Your task to perform on an android device: Search for Italian restaurants on Maps Image 0: 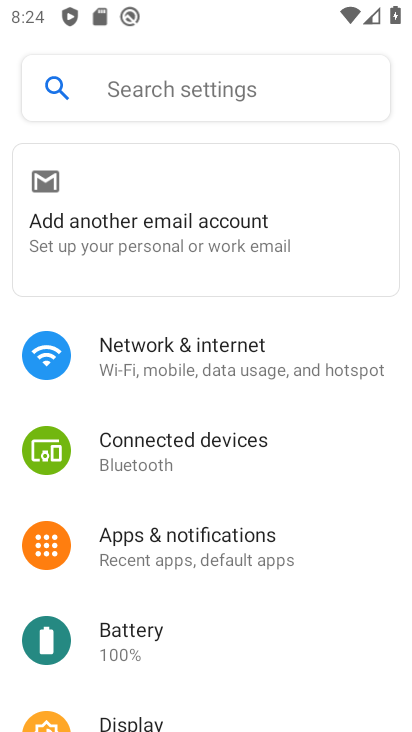
Step 0: press home button
Your task to perform on an android device: Search for Italian restaurants on Maps Image 1: 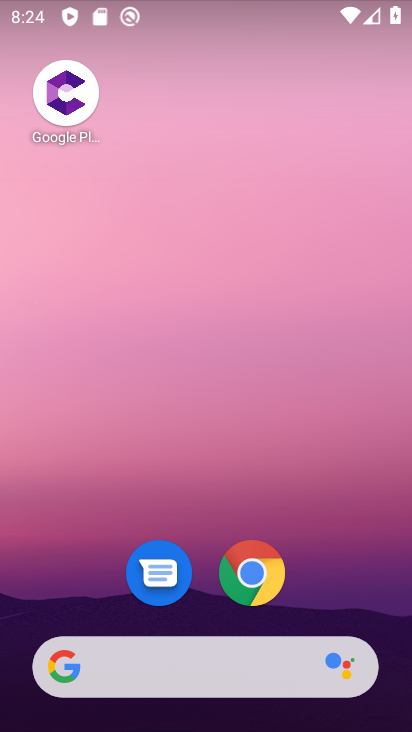
Step 1: drag from (330, 500) to (327, 209)
Your task to perform on an android device: Search for Italian restaurants on Maps Image 2: 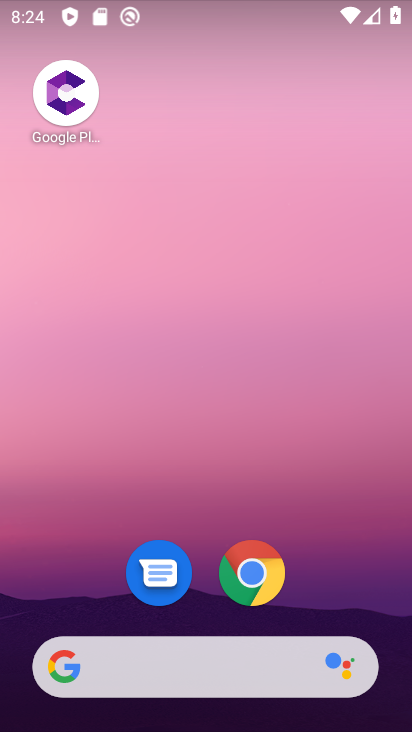
Step 2: drag from (302, 585) to (307, 153)
Your task to perform on an android device: Search for Italian restaurants on Maps Image 3: 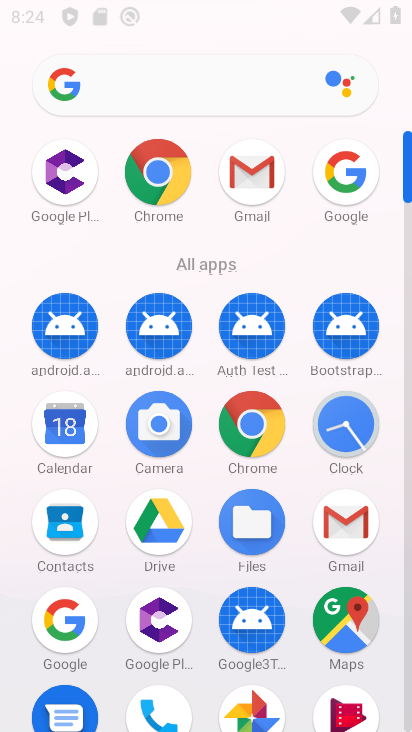
Step 3: drag from (205, 665) to (261, 338)
Your task to perform on an android device: Search for Italian restaurants on Maps Image 4: 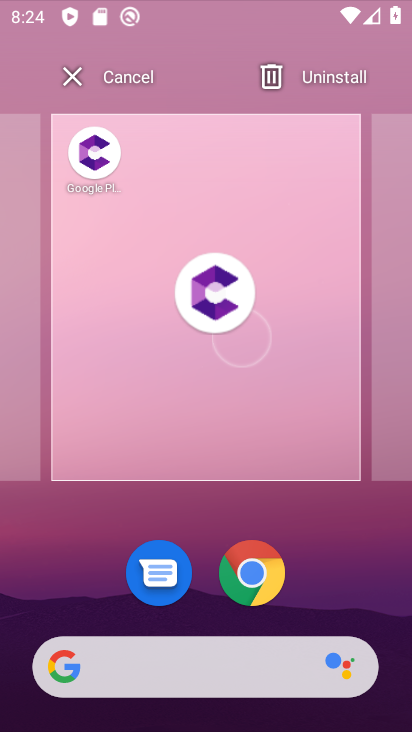
Step 4: drag from (330, 420) to (328, 282)
Your task to perform on an android device: Search for Italian restaurants on Maps Image 5: 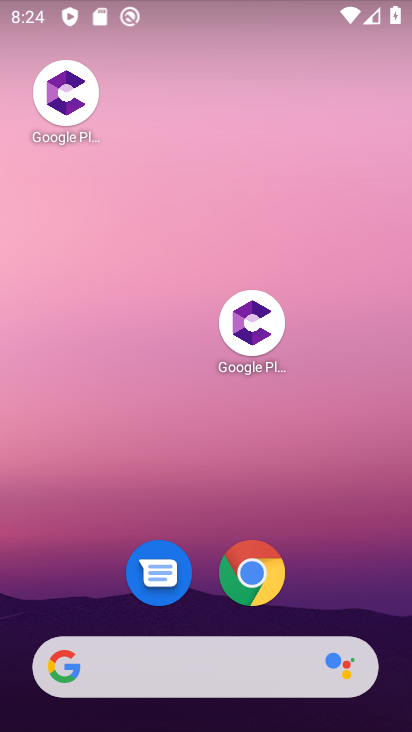
Step 5: drag from (349, 446) to (348, 216)
Your task to perform on an android device: Search for Italian restaurants on Maps Image 6: 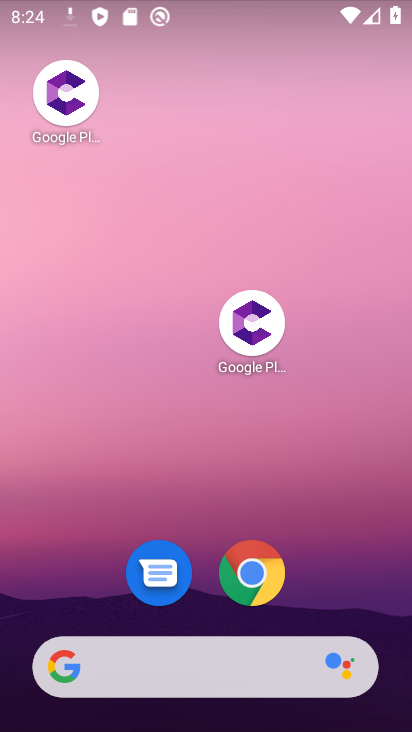
Step 6: drag from (306, 366) to (325, 160)
Your task to perform on an android device: Search for Italian restaurants on Maps Image 7: 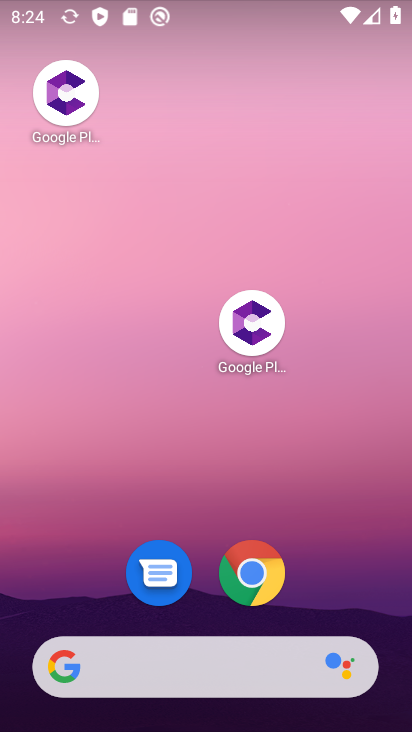
Step 7: drag from (208, 501) to (319, 277)
Your task to perform on an android device: Search for Italian restaurants on Maps Image 8: 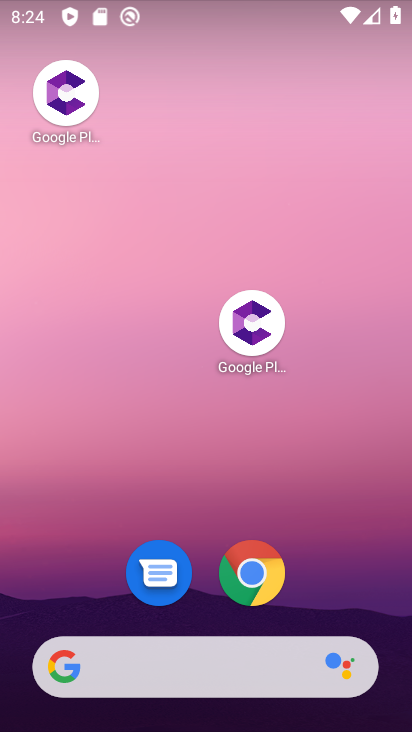
Step 8: drag from (296, 444) to (307, 162)
Your task to perform on an android device: Search for Italian restaurants on Maps Image 9: 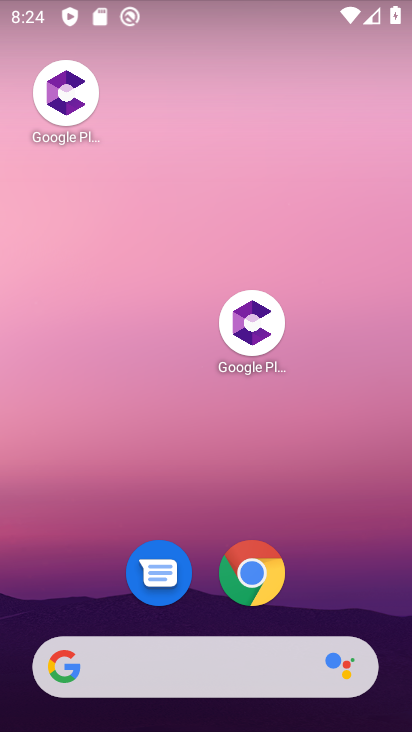
Step 9: drag from (299, 607) to (328, 129)
Your task to perform on an android device: Search for Italian restaurants on Maps Image 10: 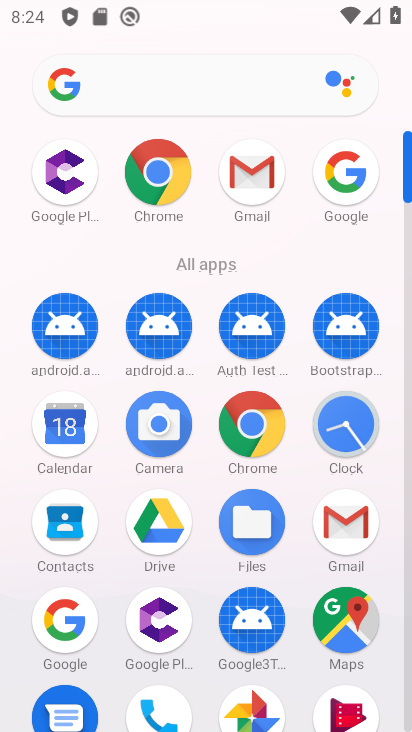
Step 10: click (346, 627)
Your task to perform on an android device: Search for Italian restaurants on Maps Image 11: 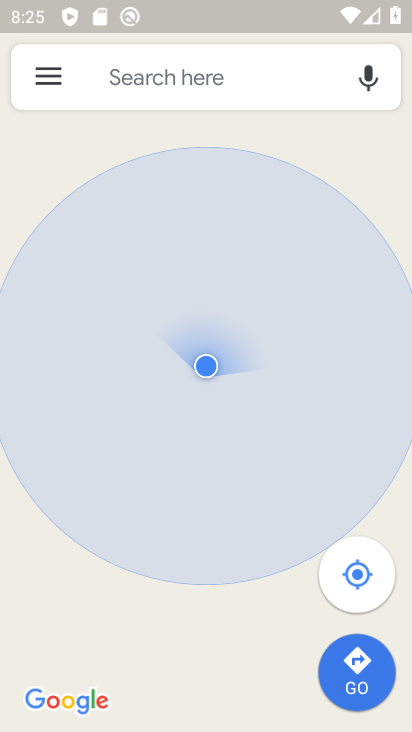
Step 11: click (141, 77)
Your task to perform on an android device: Search for Italian restaurants on Maps Image 12: 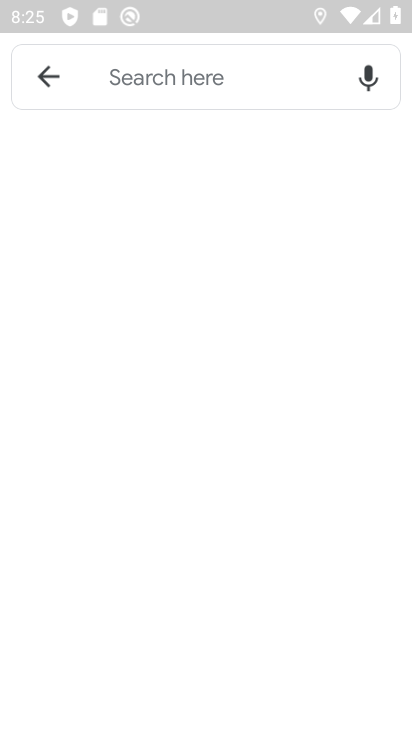
Step 12: click (207, 67)
Your task to perform on an android device: Search for Italian restaurants on Maps Image 13: 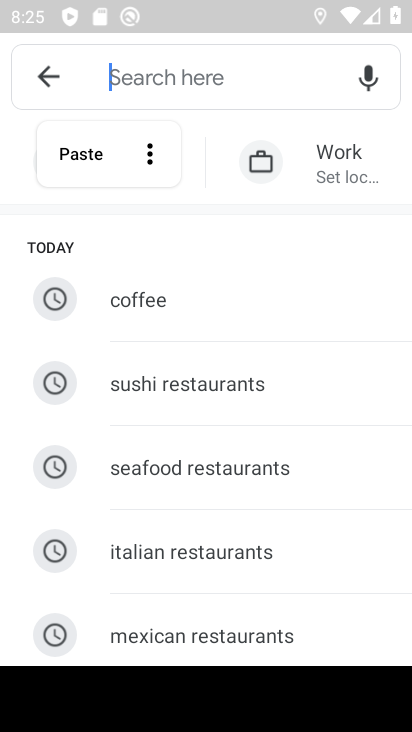
Step 13: type "It"
Your task to perform on an android device: Search for Italian restaurants on Maps Image 14: 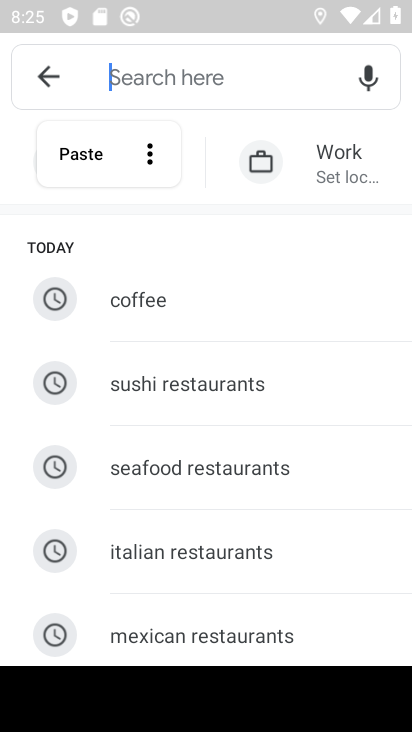
Step 14: click (243, 560)
Your task to perform on an android device: Search for Italian restaurants on Maps Image 15: 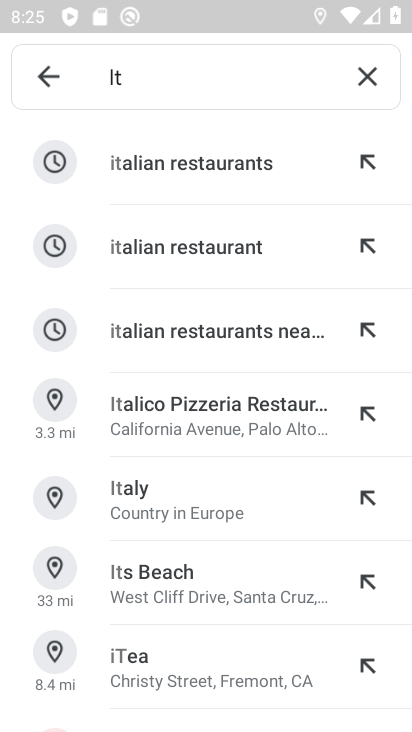
Step 15: click (164, 151)
Your task to perform on an android device: Search for Italian restaurants on Maps Image 16: 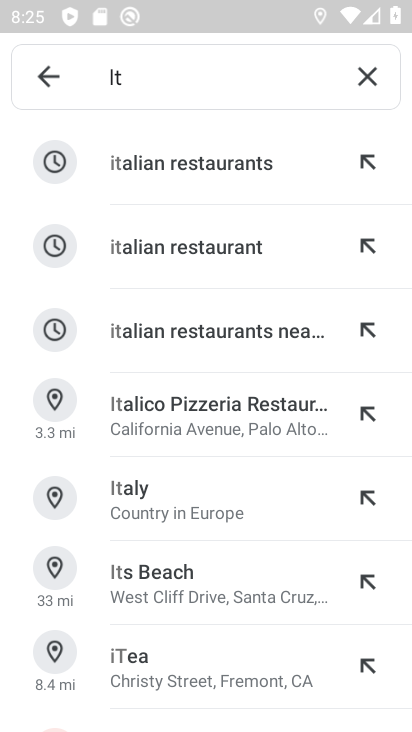
Step 16: click (193, 168)
Your task to perform on an android device: Search for Italian restaurants on Maps Image 17: 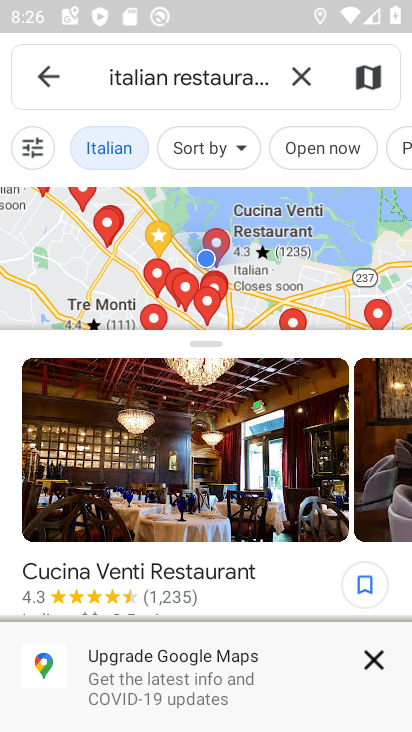
Step 17: task complete